Your task to perform on an android device: turn off notifications settings in the gmail app Image 0: 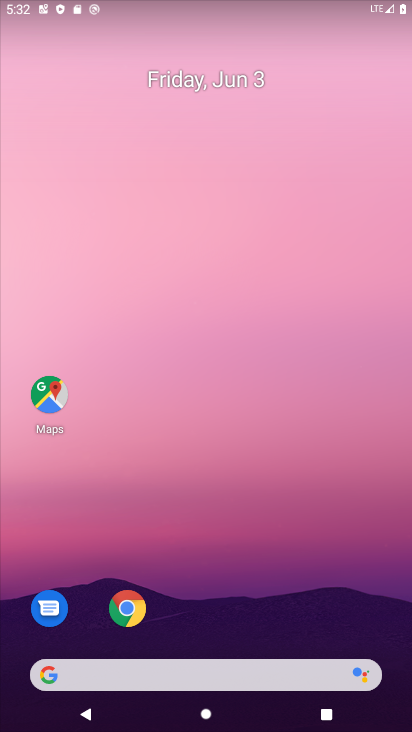
Step 0: drag from (255, 592) to (384, 172)
Your task to perform on an android device: turn off notifications settings in the gmail app Image 1: 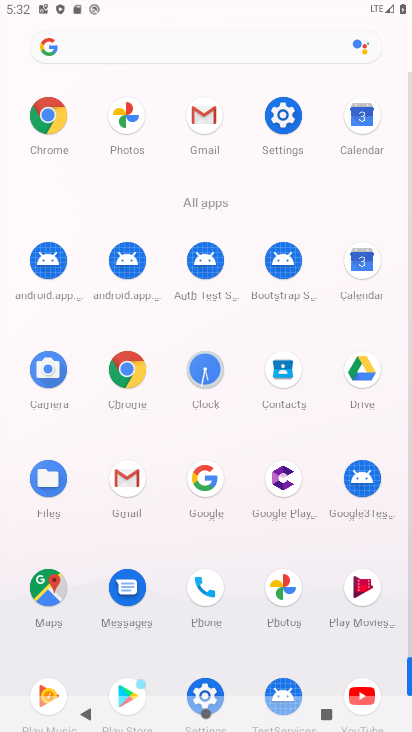
Step 1: click (199, 114)
Your task to perform on an android device: turn off notifications settings in the gmail app Image 2: 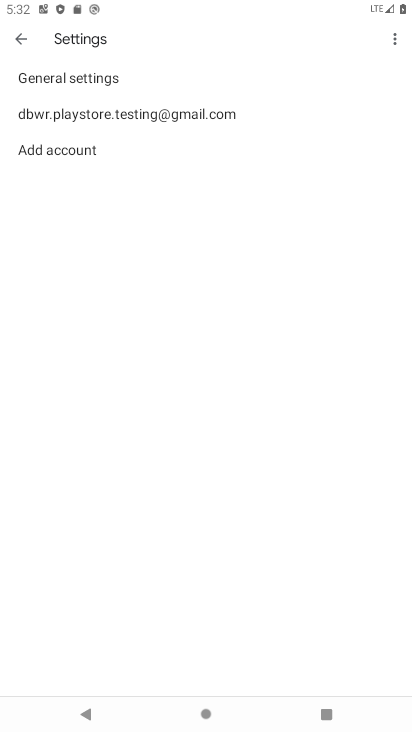
Step 2: click (15, 35)
Your task to perform on an android device: turn off notifications settings in the gmail app Image 3: 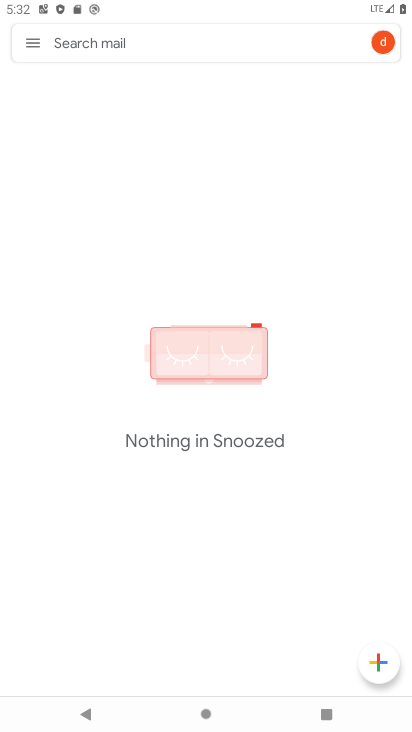
Step 3: click (37, 42)
Your task to perform on an android device: turn off notifications settings in the gmail app Image 4: 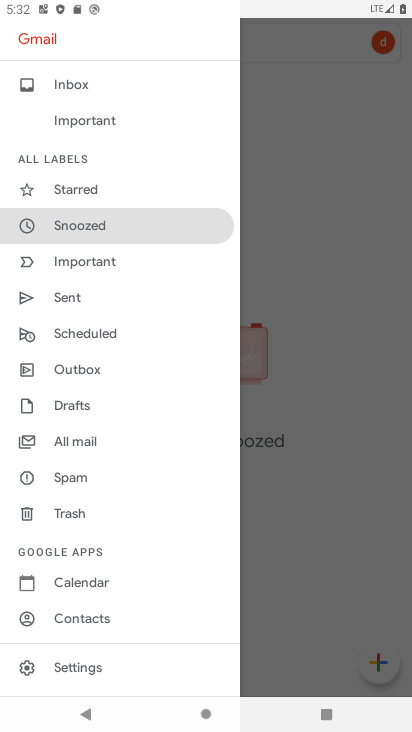
Step 4: click (108, 676)
Your task to perform on an android device: turn off notifications settings in the gmail app Image 5: 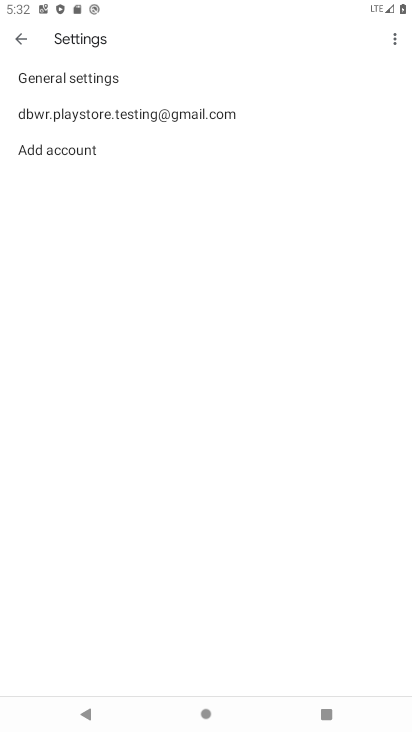
Step 5: click (165, 73)
Your task to perform on an android device: turn off notifications settings in the gmail app Image 6: 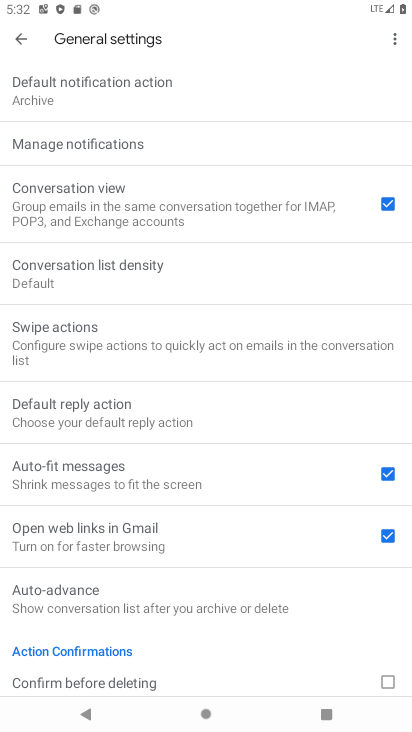
Step 6: click (138, 134)
Your task to perform on an android device: turn off notifications settings in the gmail app Image 7: 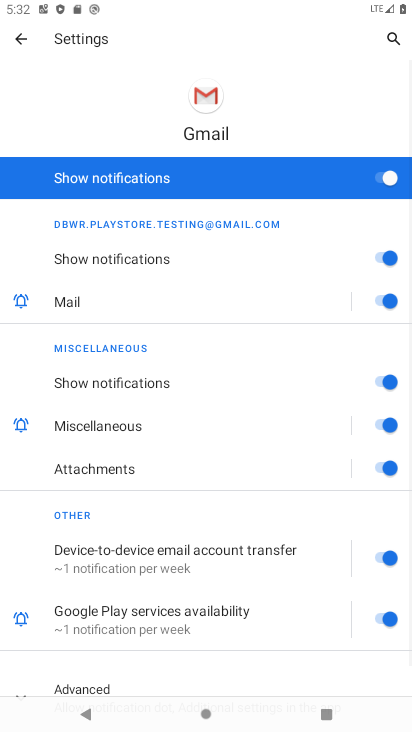
Step 7: click (379, 175)
Your task to perform on an android device: turn off notifications settings in the gmail app Image 8: 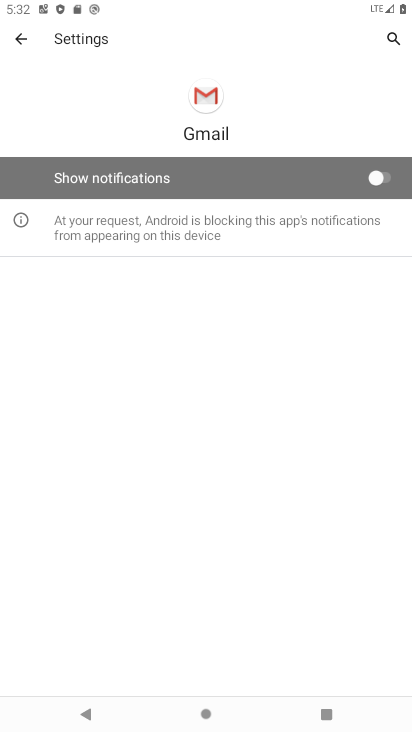
Step 8: task complete